Your task to perform on an android device: Open network settings Image 0: 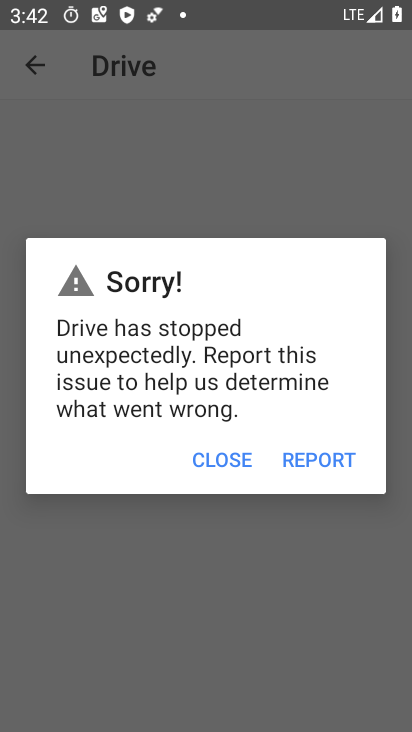
Step 0: drag from (213, 675) to (226, 541)
Your task to perform on an android device: Open network settings Image 1: 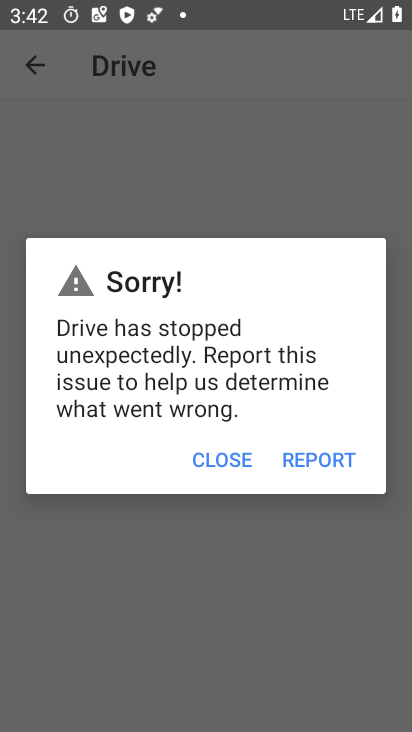
Step 1: press home button
Your task to perform on an android device: Open network settings Image 2: 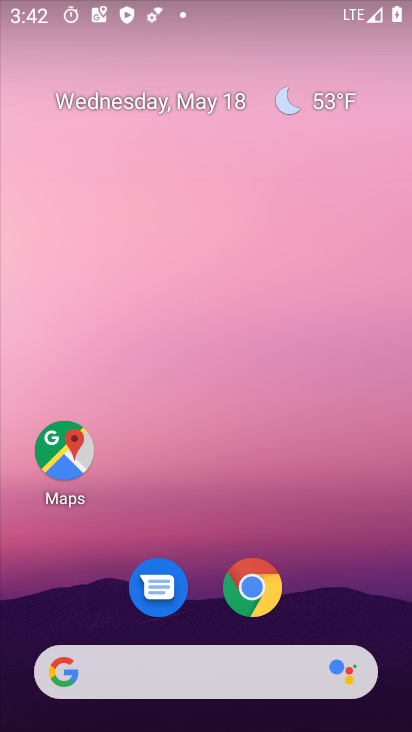
Step 2: drag from (165, 703) to (235, 222)
Your task to perform on an android device: Open network settings Image 3: 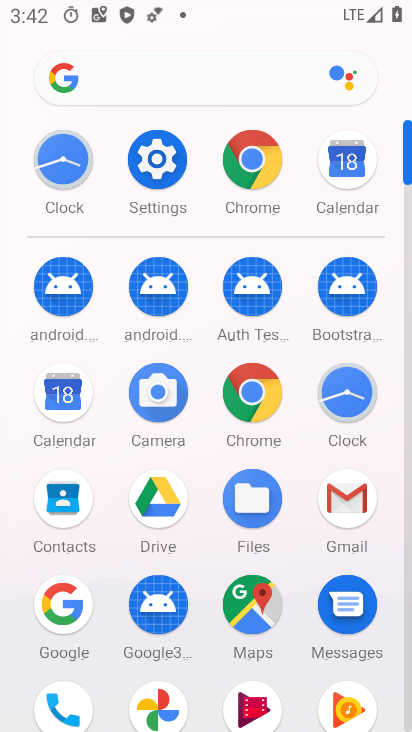
Step 3: click (169, 180)
Your task to perform on an android device: Open network settings Image 4: 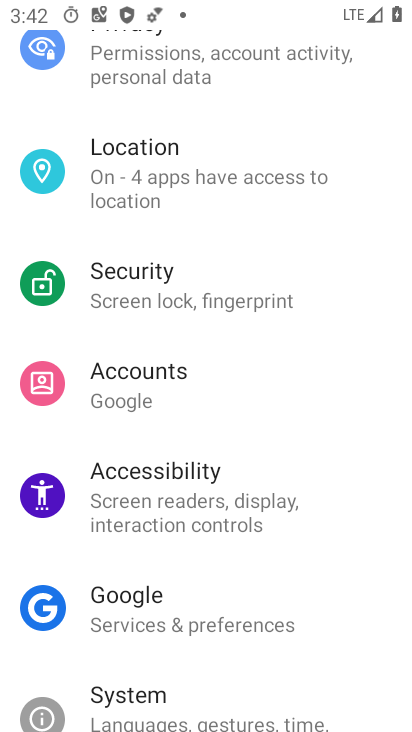
Step 4: drag from (215, 277) to (211, 720)
Your task to perform on an android device: Open network settings Image 5: 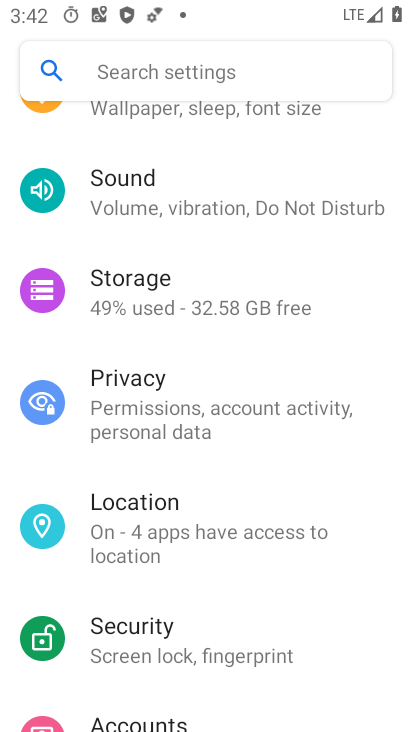
Step 5: drag from (216, 500) to (218, 726)
Your task to perform on an android device: Open network settings Image 6: 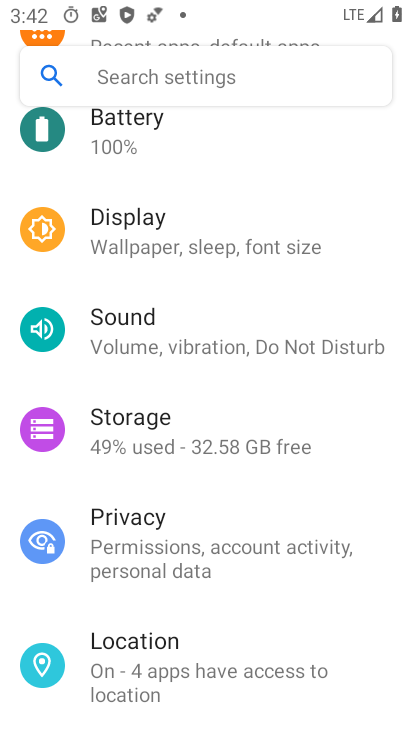
Step 6: drag from (213, 335) to (201, 731)
Your task to perform on an android device: Open network settings Image 7: 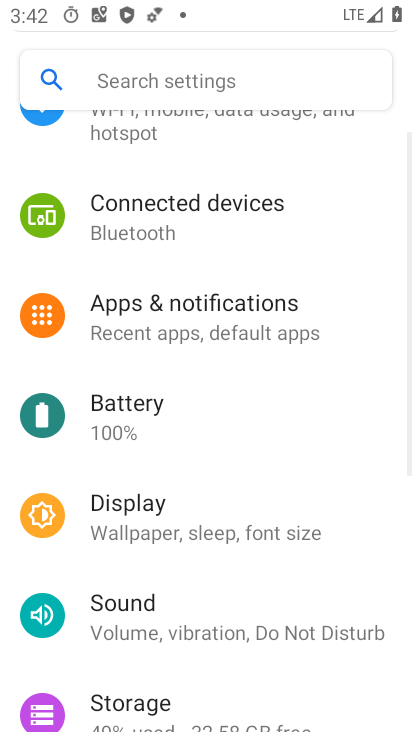
Step 7: drag from (202, 283) to (221, 648)
Your task to perform on an android device: Open network settings Image 8: 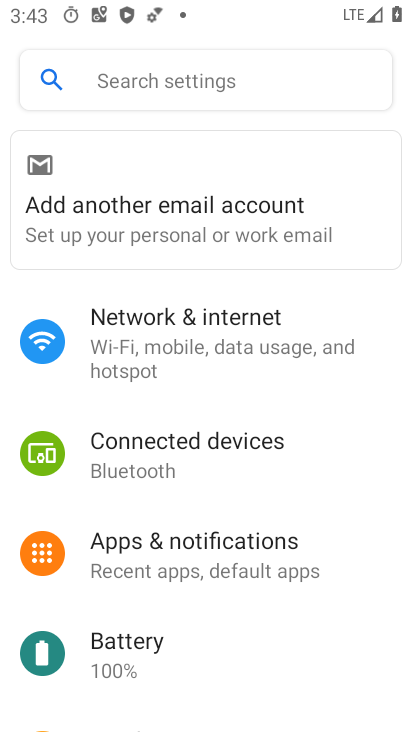
Step 8: click (240, 353)
Your task to perform on an android device: Open network settings Image 9: 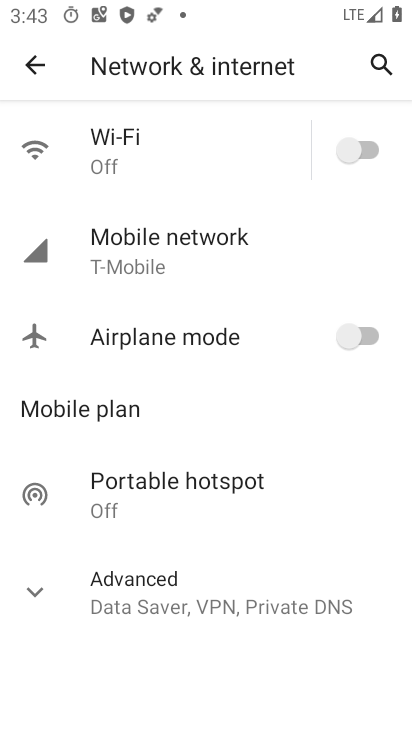
Step 9: click (229, 260)
Your task to perform on an android device: Open network settings Image 10: 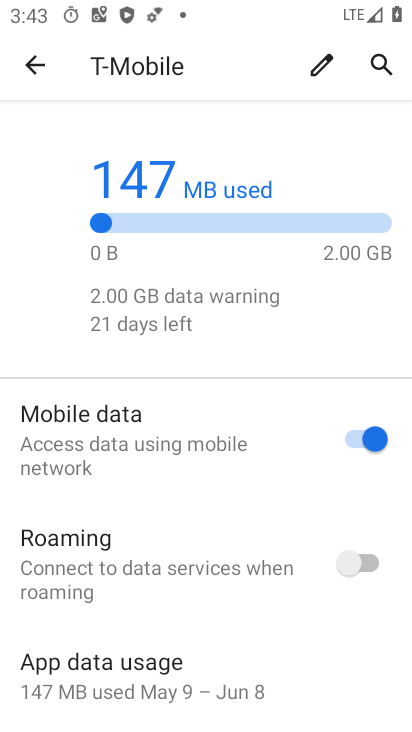
Step 10: task complete